Your task to perform on an android device: Open Chrome and go to settings Image 0: 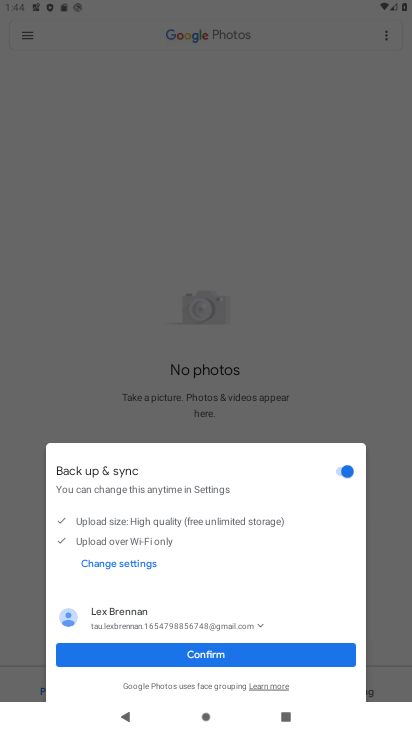
Step 0: press home button
Your task to perform on an android device: Open Chrome and go to settings Image 1: 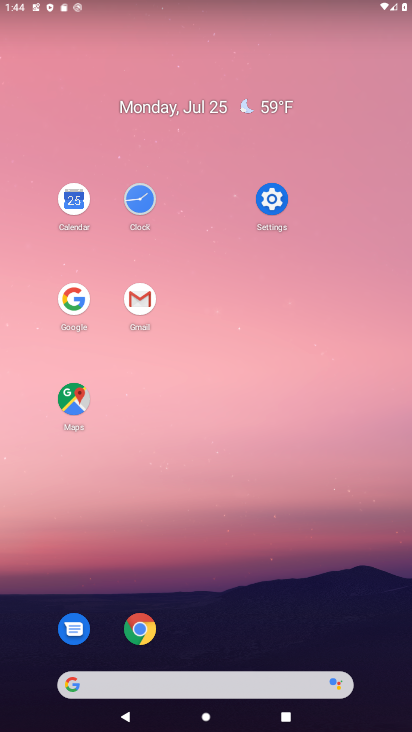
Step 1: click (144, 621)
Your task to perform on an android device: Open Chrome and go to settings Image 2: 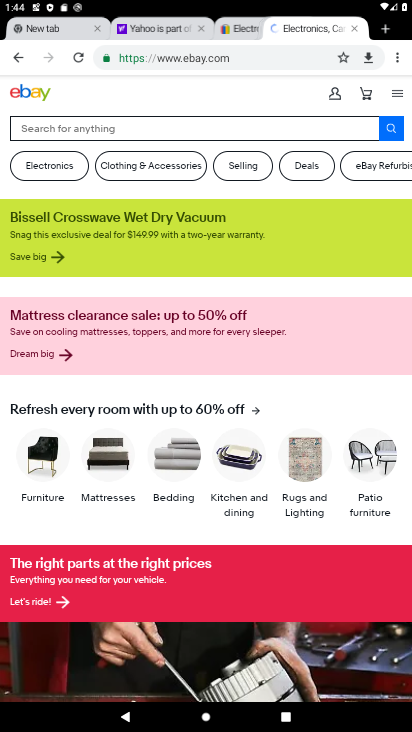
Step 2: click (411, 58)
Your task to perform on an android device: Open Chrome and go to settings Image 3: 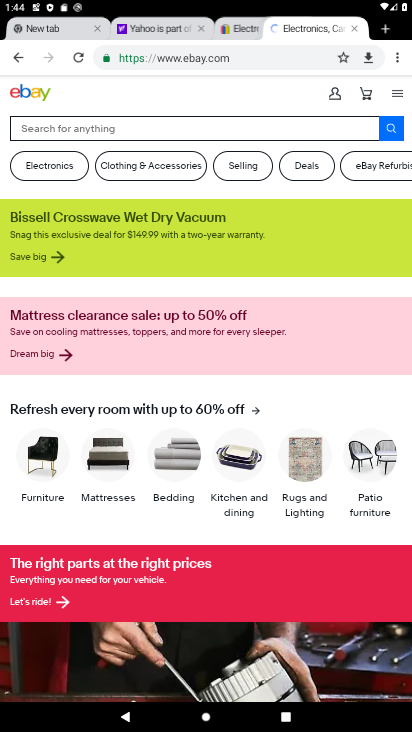
Step 3: click (392, 58)
Your task to perform on an android device: Open Chrome and go to settings Image 4: 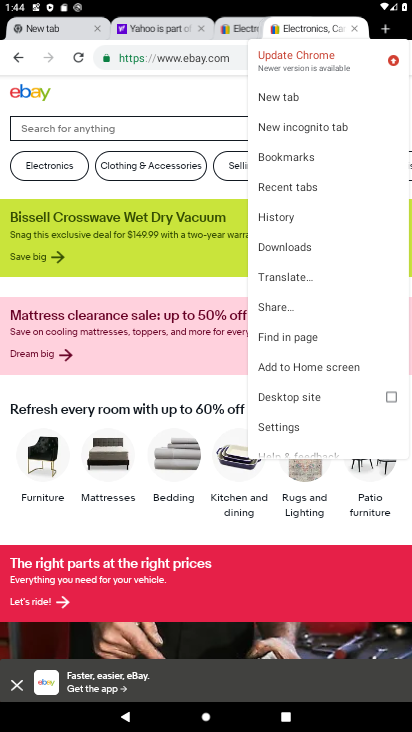
Step 4: click (287, 431)
Your task to perform on an android device: Open Chrome and go to settings Image 5: 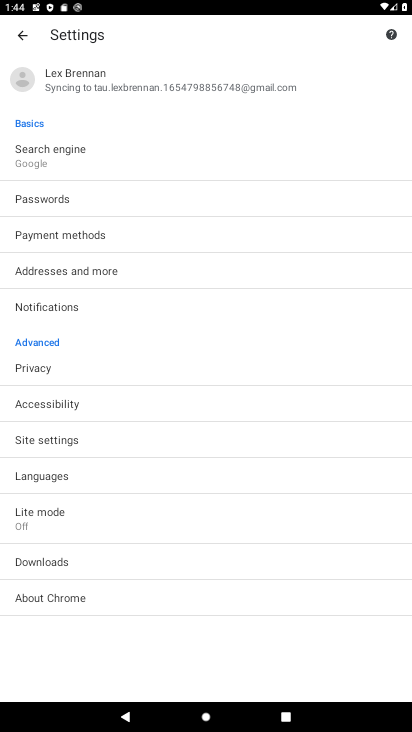
Step 5: task complete